Your task to perform on an android device: Open the web browser Image 0: 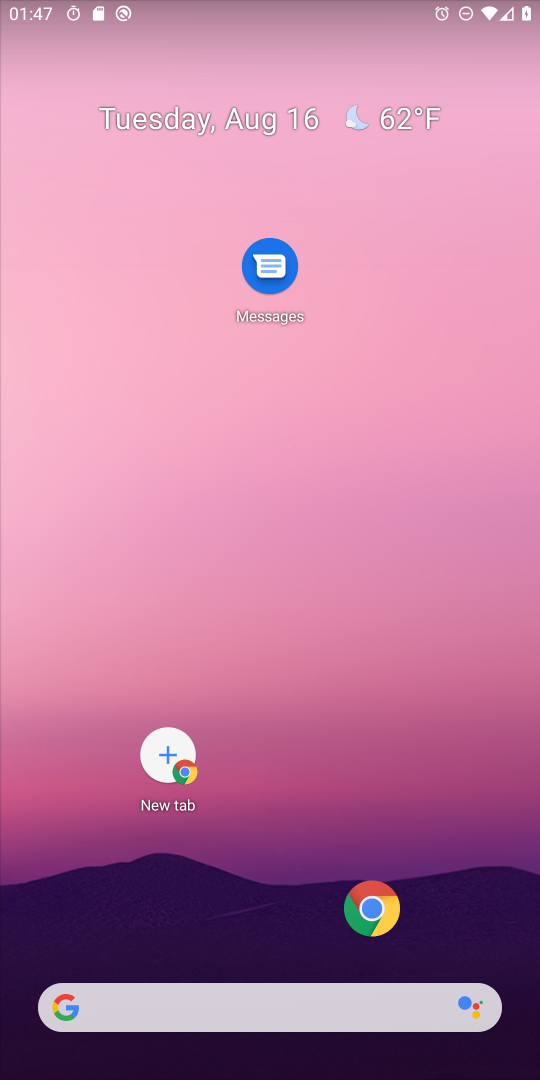
Step 0: click (302, 1017)
Your task to perform on an android device: Open the web browser Image 1: 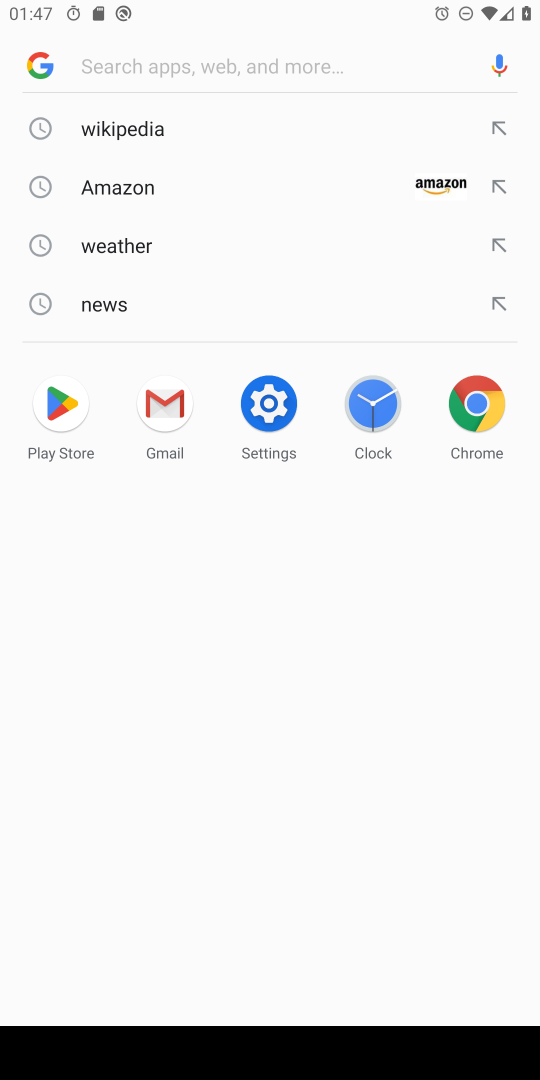
Step 1: task complete